Your task to perform on an android device: Go to internet settings Image 0: 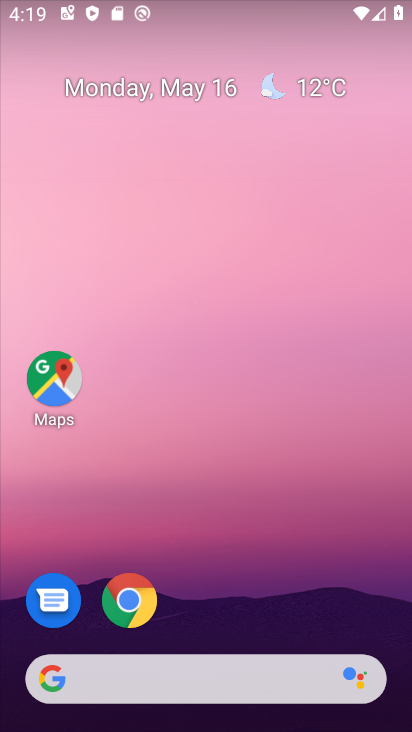
Step 0: drag from (209, 518) to (238, 18)
Your task to perform on an android device: Go to internet settings Image 1: 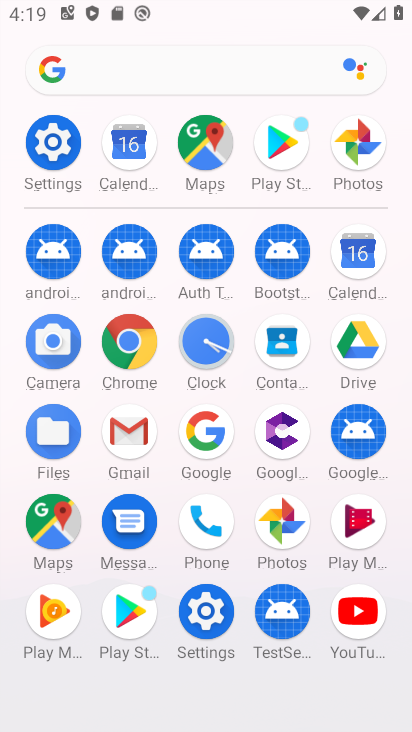
Step 1: click (28, 252)
Your task to perform on an android device: Go to internet settings Image 2: 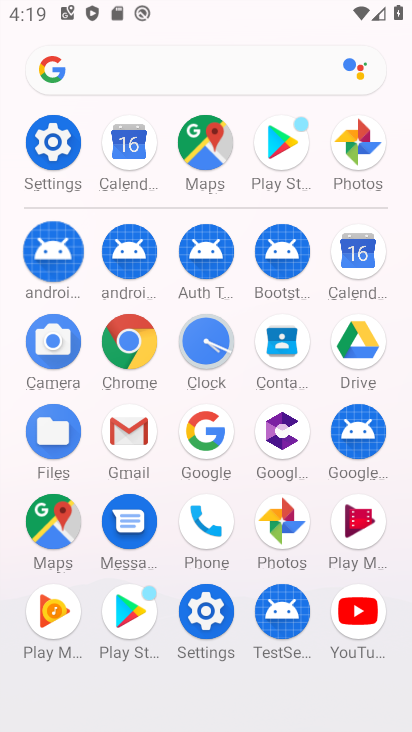
Step 2: click (33, 145)
Your task to perform on an android device: Go to internet settings Image 3: 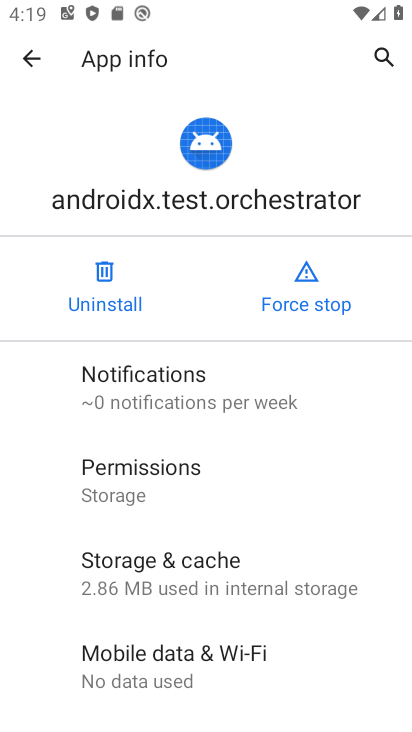
Step 3: click (18, 53)
Your task to perform on an android device: Go to internet settings Image 4: 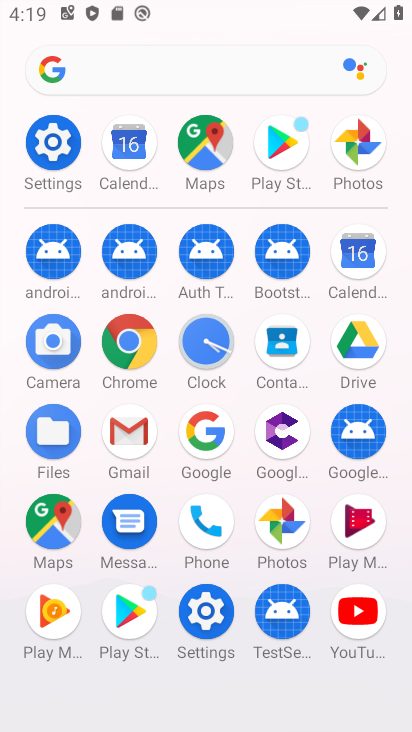
Step 4: click (45, 148)
Your task to perform on an android device: Go to internet settings Image 5: 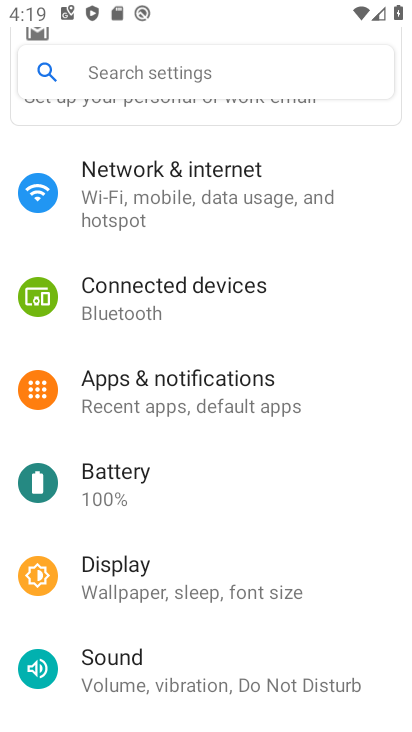
Step 5: click (193, 194)
Your task to perform on an android device: Go to internet settings Image 6: 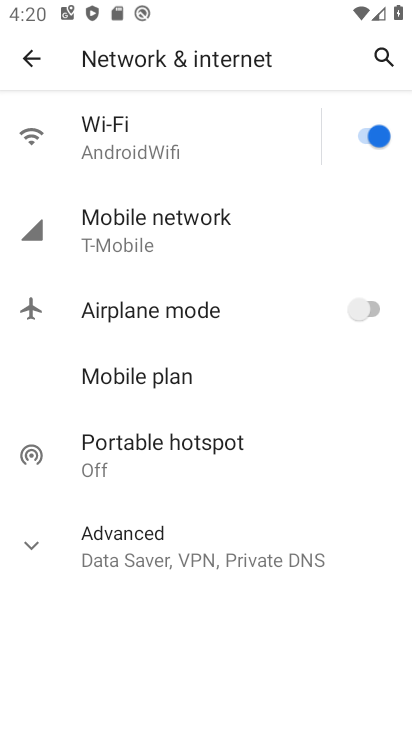
Step 6: click (161, 559)
Your task to perform on an android device: Go to internet settings Image 7: 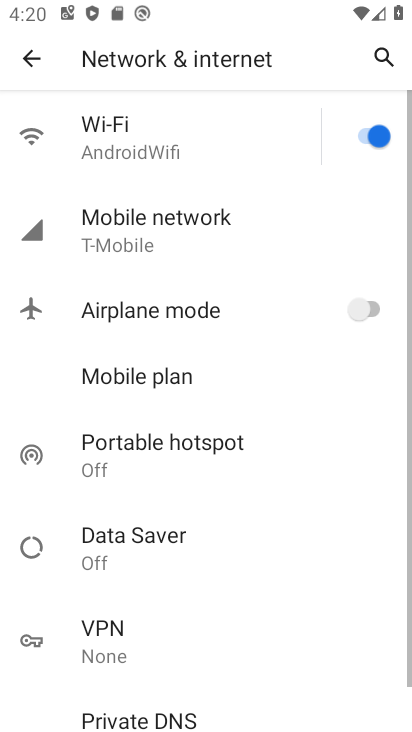
Step 7: click (34, 541)
Your task to perform on an android device: Go to internet settings Image 8: 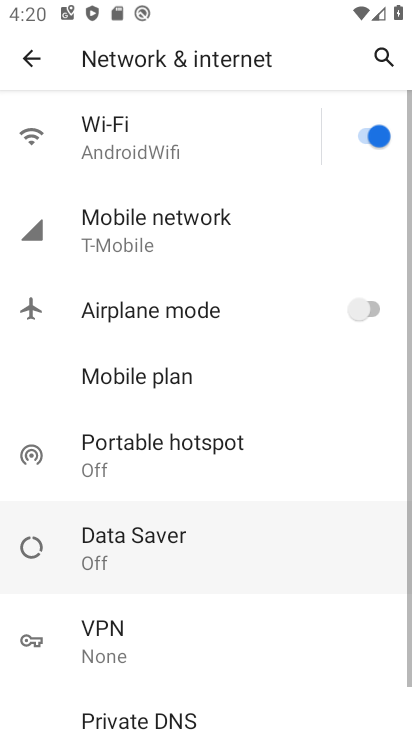
Step 8: task complete